Your task to perform on an android device: Add "logitech g pro" to the cart on newegg.com, then select checkout. Image 0: 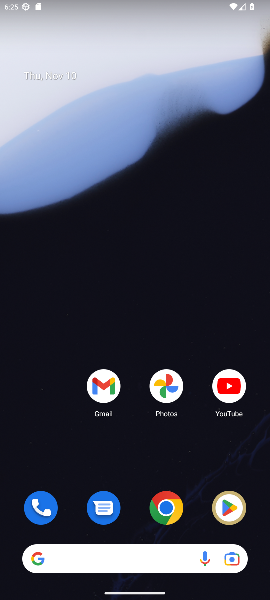
Step 0: click (162, 507)
Your task to perform on an android device: Add "logitech g pro" to the cart on newegg.com, then select checkout. Image 1: 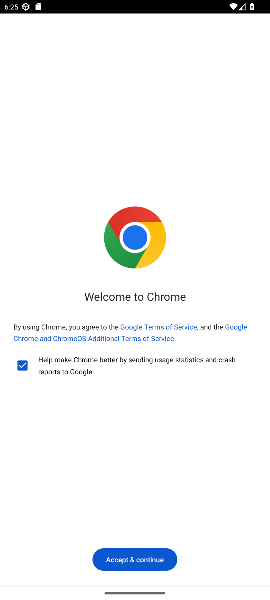
Step 1: click (141, 557)
Your task to perform on an android device: Add "logitech g pro" to the cart on newegg.com, then select checkout. Image 2: 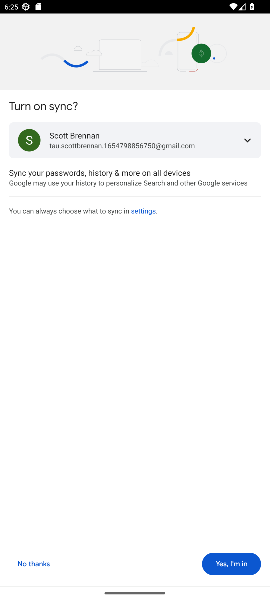
Step 2: click (221, 566)
Your task to perform on an android device: Add "logitech g pro" to the cart on newegg.com, then select checkout. Image 3: 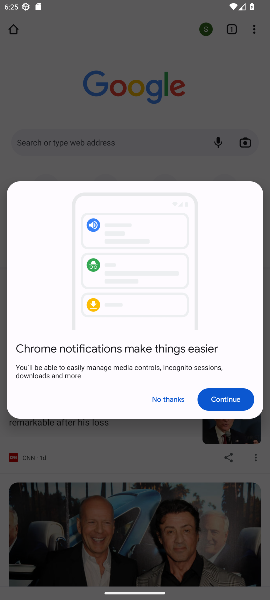
Step 3: click (172, 394)
Your task to perform on an android device: Add "logitech g pro" to the cart on newegg.com, then select checkout. Image 4: 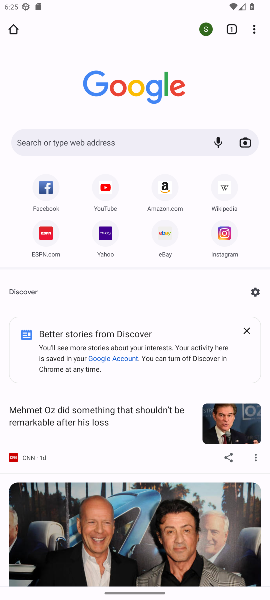
Step 4: click (50, 141)
Your task to perform on an android device: Add "logitech g pro" to the cart on newegg.com, then select checkout. Image 5: 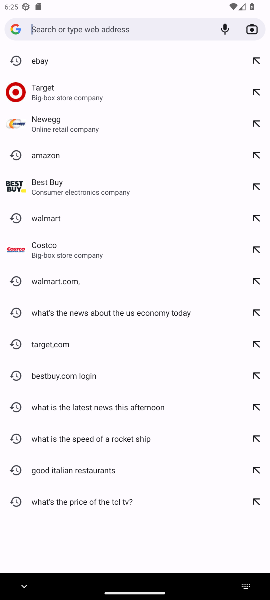
Step 5: click (50, 123)
Your task to perform on an android device: Add "logitech g pro" to the cart on newegg.com, then select checkout. Image 6: 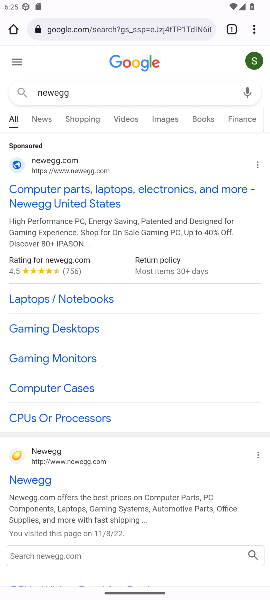
Step 6: click (34, 481)
Your task to perform on an android device: Add "logitech g pro" to the cart on newegg.com, then select checkout. Image 7: 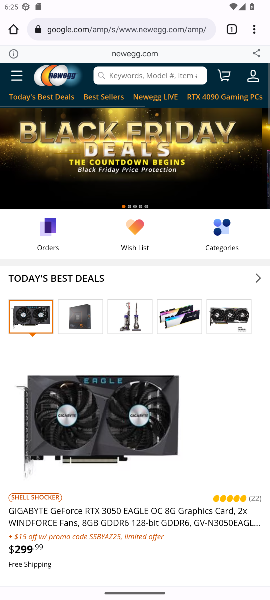
Step 7: click (144, 71)
Your task to perform on an android device: Add "logitech g pro" to the cart on newegg.com, then select checkout. Image 8: 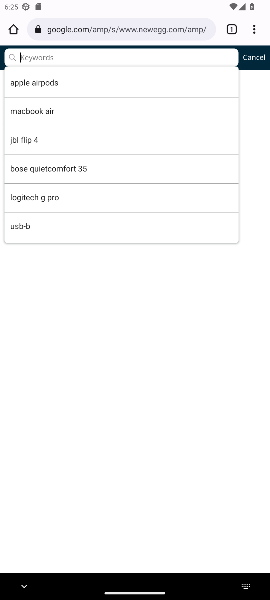
Step 8: type "logitech g pro"
Your task to perform on an android device: Add "logitech g pro" to the cart on newegg.com, then select checkout. Image 9: 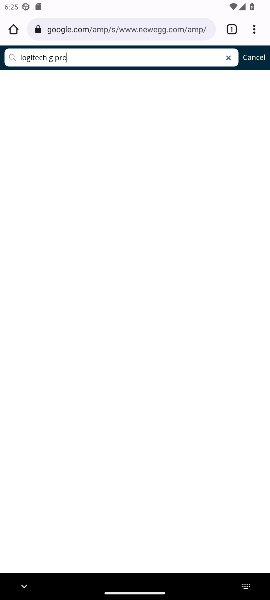
Step 9: press enter
Your task to perform on an android device: Add "logitech g pro" to the cart on newegg.com, then select checkout. Image 10: 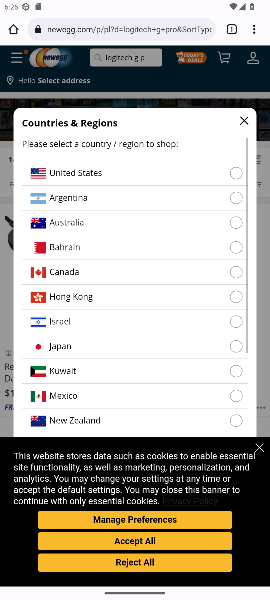
Step 10: click (244, 119)
Your task to perform on an android device: Add "logitech g pro" to the cart on newegg.com, then select checkout. Image 11: 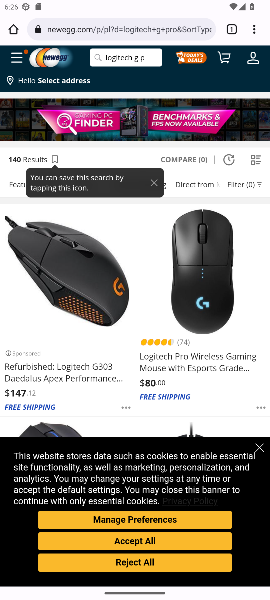
Step 11: click (259, 445)
Your task to perform on an android device: Add "logitech g pro" to the cart on newegg.com, then select checkout. Image 12: 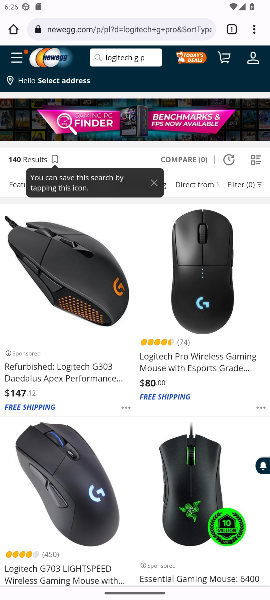
Step 12: drag from (126, 466) to (184, 247)
Your task to perform on an android device: Add "logitech g pro" to the cart on newegg.com, then select checkout. Image 13: 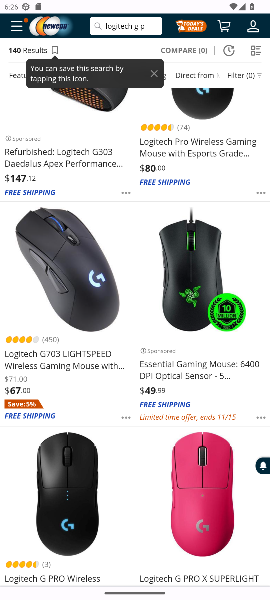
Step 13: drag from (139, 481) to (193, 262)
Your task to perform on an android device: Add "logitech g pro" to the cart on newegg.com, then select checkout. Image 14: 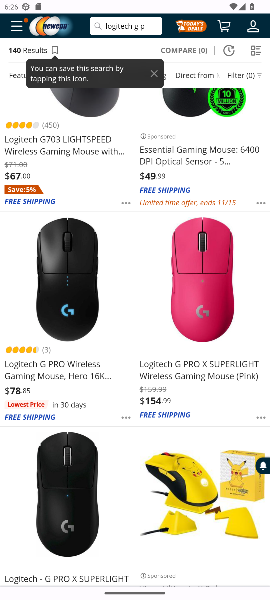
Step 14: click (71, 368)
Your task to perform on an android device: Add "logitech g pro" to the cart on newegg.com, then select checkout. Image 15: 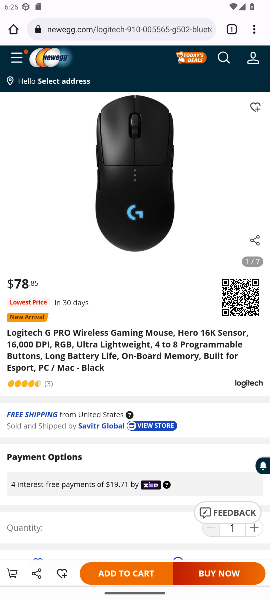
Step 15: click (130, 573)
Your task to perform on an android device: Add "logitech g pro" to the cart on newegg.com, then select checkout. Image 16: 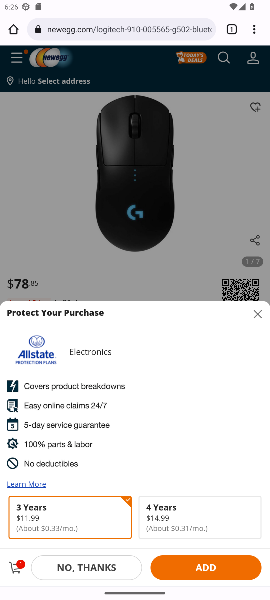
Step 16: click (15, 565)
Your task to perform on an android device: Add "logitech g pro" to the cart on newegg.com, then select checkout. Image 17: 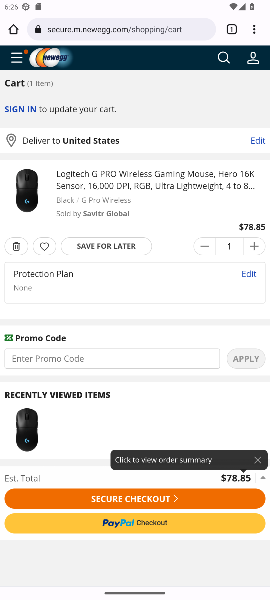
Step 17: click (163, 500)
Your task to perform on an android device: Add "logitech g pro" to the cart on newegg.com, then select checkout. Image 18: 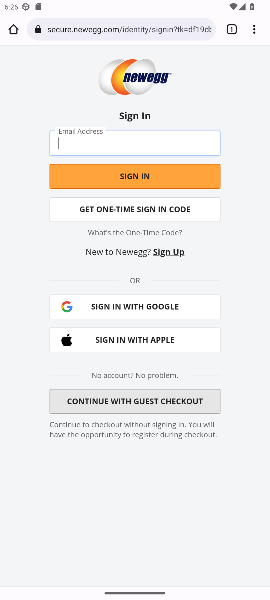
Step 18: task complete